Your task to perform on an android device: snooze an email in the gmail app Image 0: 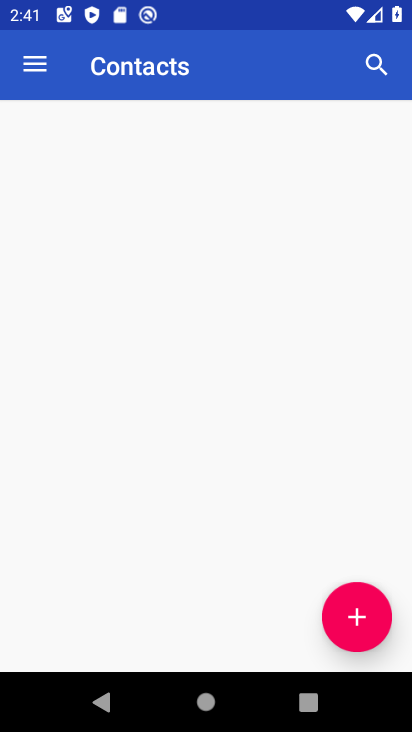
Step 0: drag from (110, 19) to (179, 591)
Your task to perform on an android device: snooze an email in the gmail app Image 1: 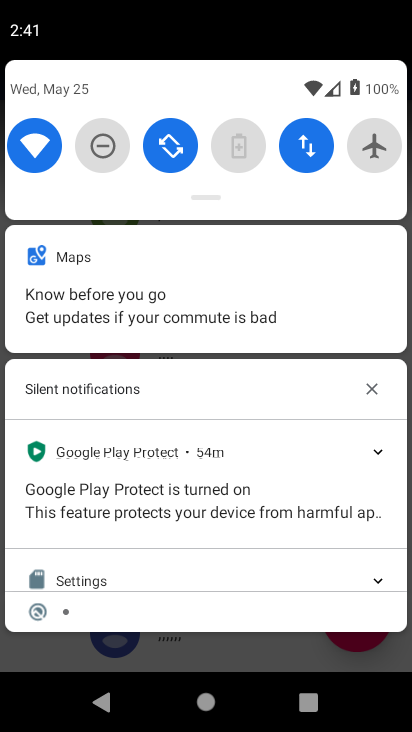
Step 1: click (28, 150)
Your task to perform on an android device: snooze an email in the gmail app Image 2: 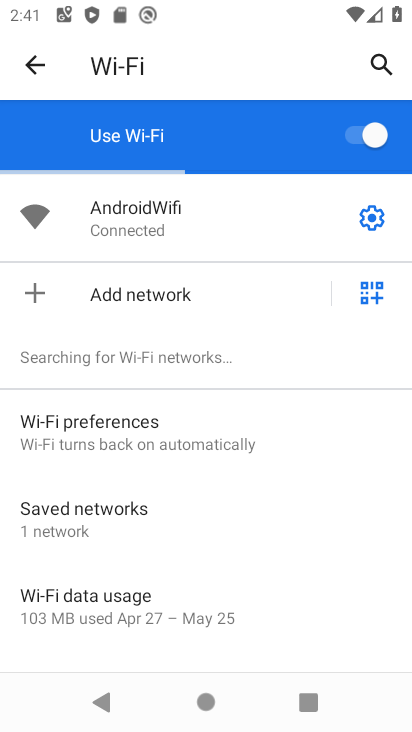
Step 2: press home button
Your task to perform on an android device: snooze an email in the gmail app Image 3: 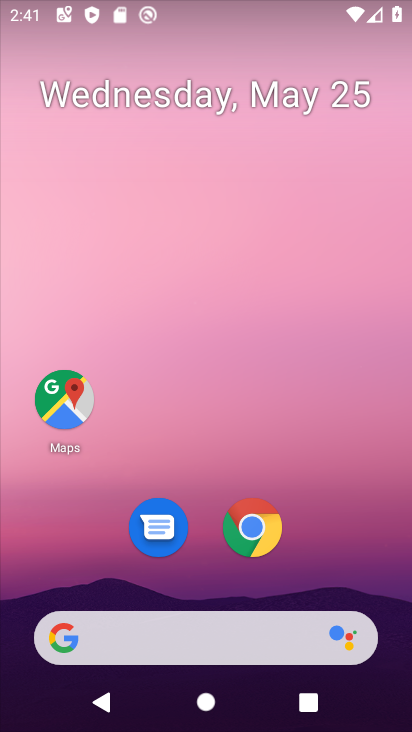
Step 3: drag from (205, 532) to (267, 48)
Your task to perform on an android device: snooze an email in the gmail app Image 4: 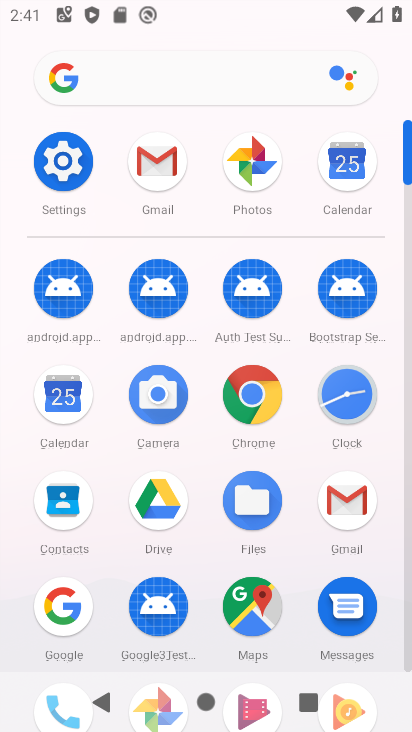
Step 4: click (149, 156)
Your task to perform on an android device: snooze an email in the gmail app Image 5: 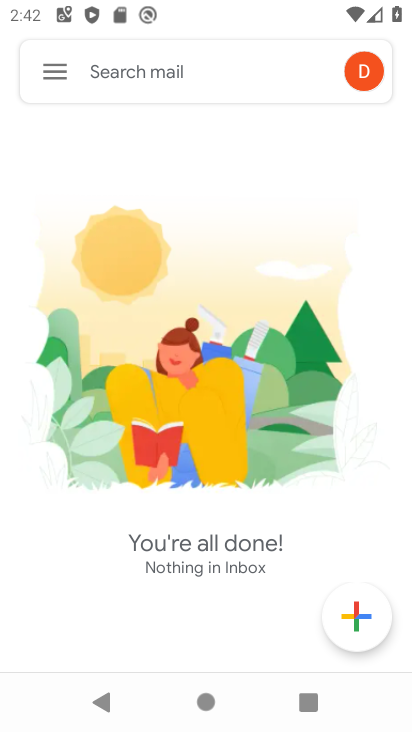
Step 5: click (56, 72)
Your task to perform on an android device: snooze an email in the gmail app Image 6: 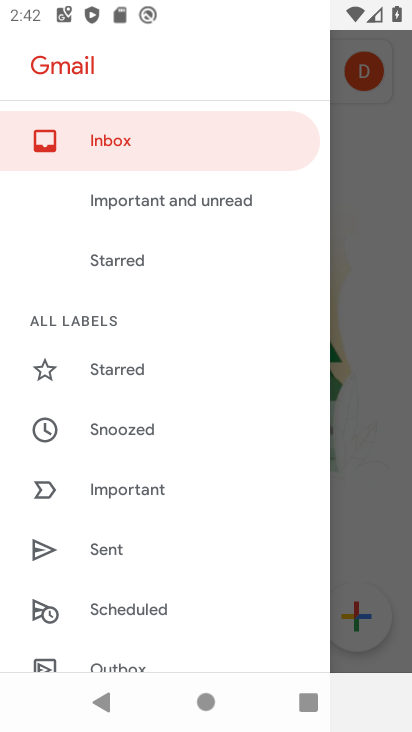
Step 6: drag from (107, 643) to (165, 269)
Your task to perform on an android device: snooze an email in the gmail app Image 7: 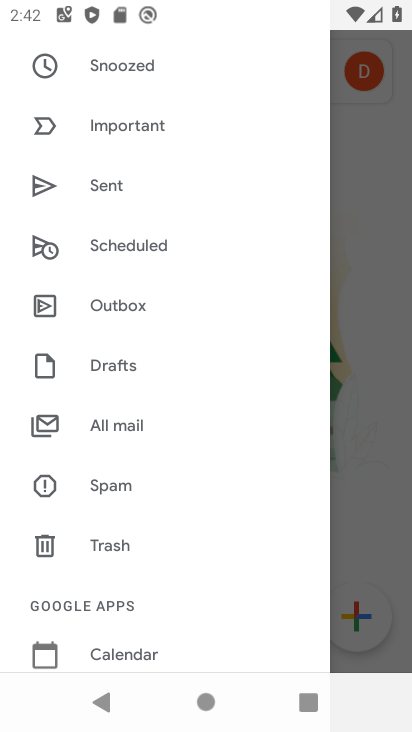
Step 7: click (120, 422)
Your task to perform on an android device: snooze an email in the gmail app Image 8: 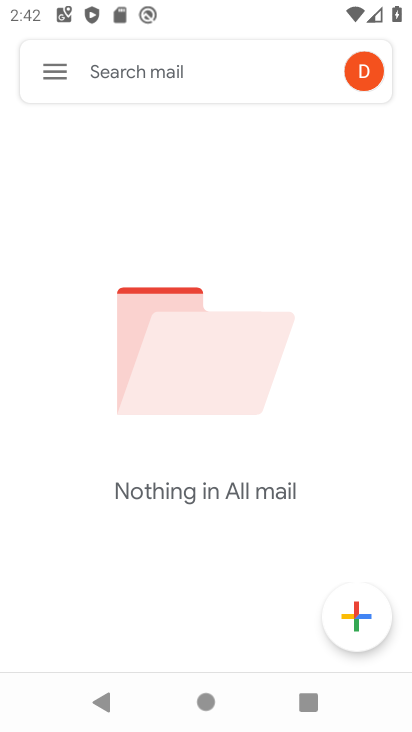
Step 8: task complete